Your task to perform on an android device: What's the weather going to be this weekend? Image 0: 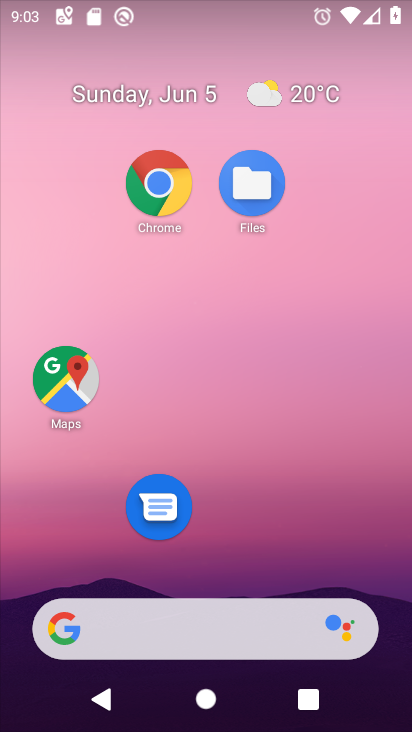
Step 0: click (269, 626)
Your task to perform on an android device: What's the weather going to be this weekend? Image 1: 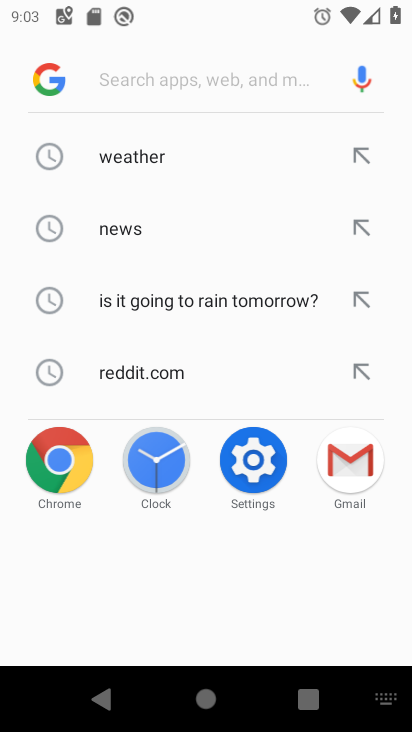
Step 1: click (135, 159)
Your task to perform on an android device: What's the weather going to be this weekend? Image 2: 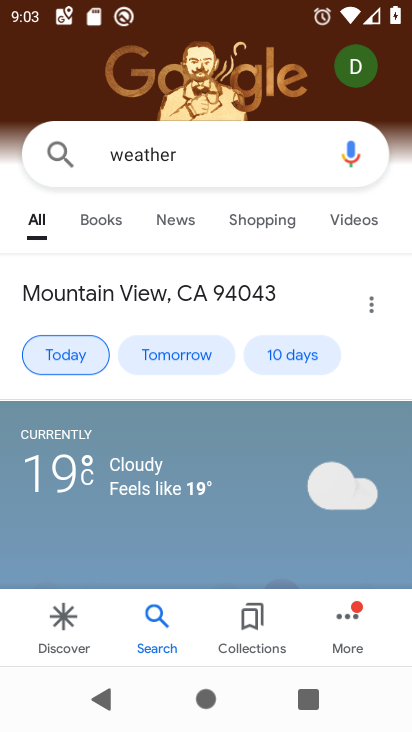
Step 2: click (304, 369)
Your task to perform on an android device: What's the weather going to be this weekend? Image 3: 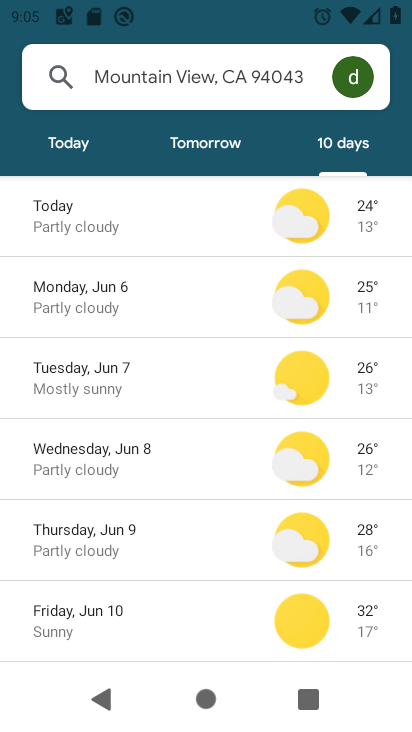
Step 3: task complete